Your task to perform on an android device: View the shopping cart on newegg. Image 0: 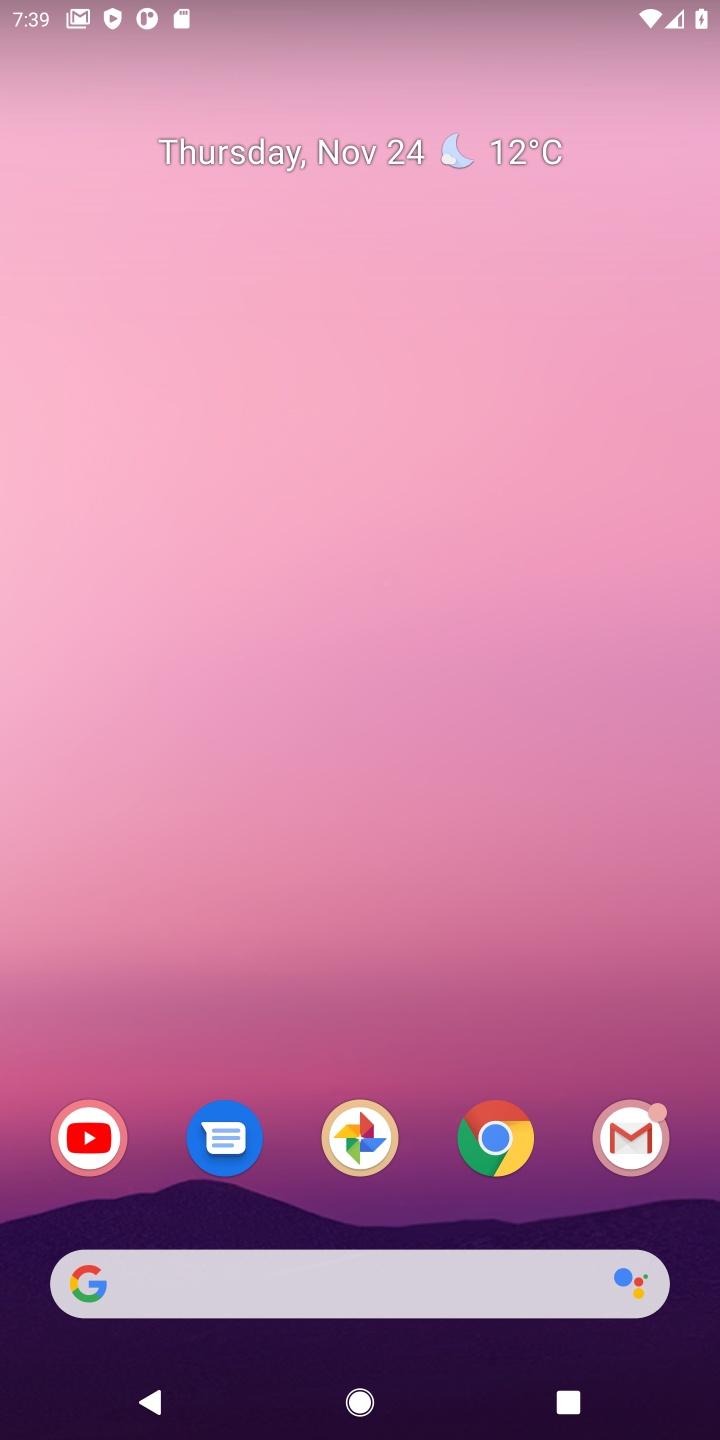
Step 0: click (480, 1124)
Your task to perform on an android device: View the shopping cart on newegg. Image 1: 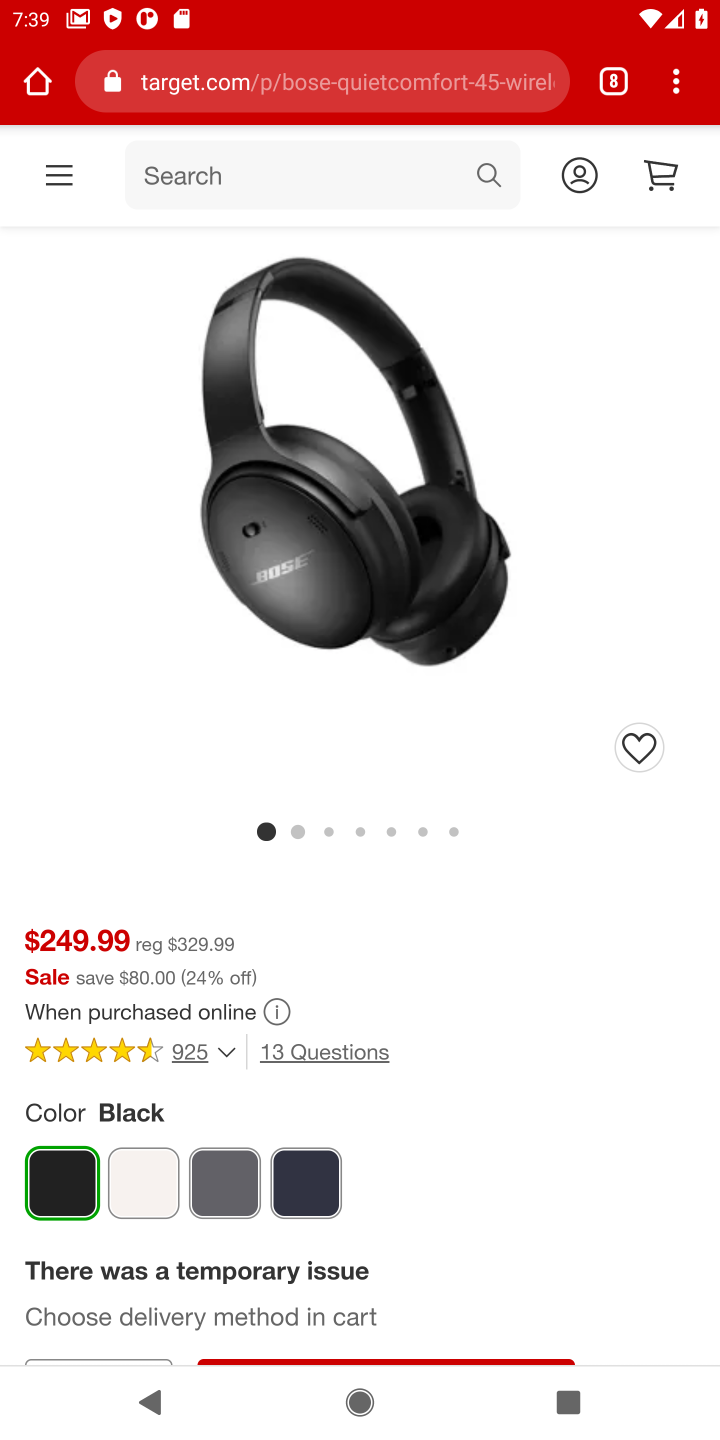
Step 1: click (611, 75)
Your task to perform on an android device: View the shopping cart on newegg. Image 2: 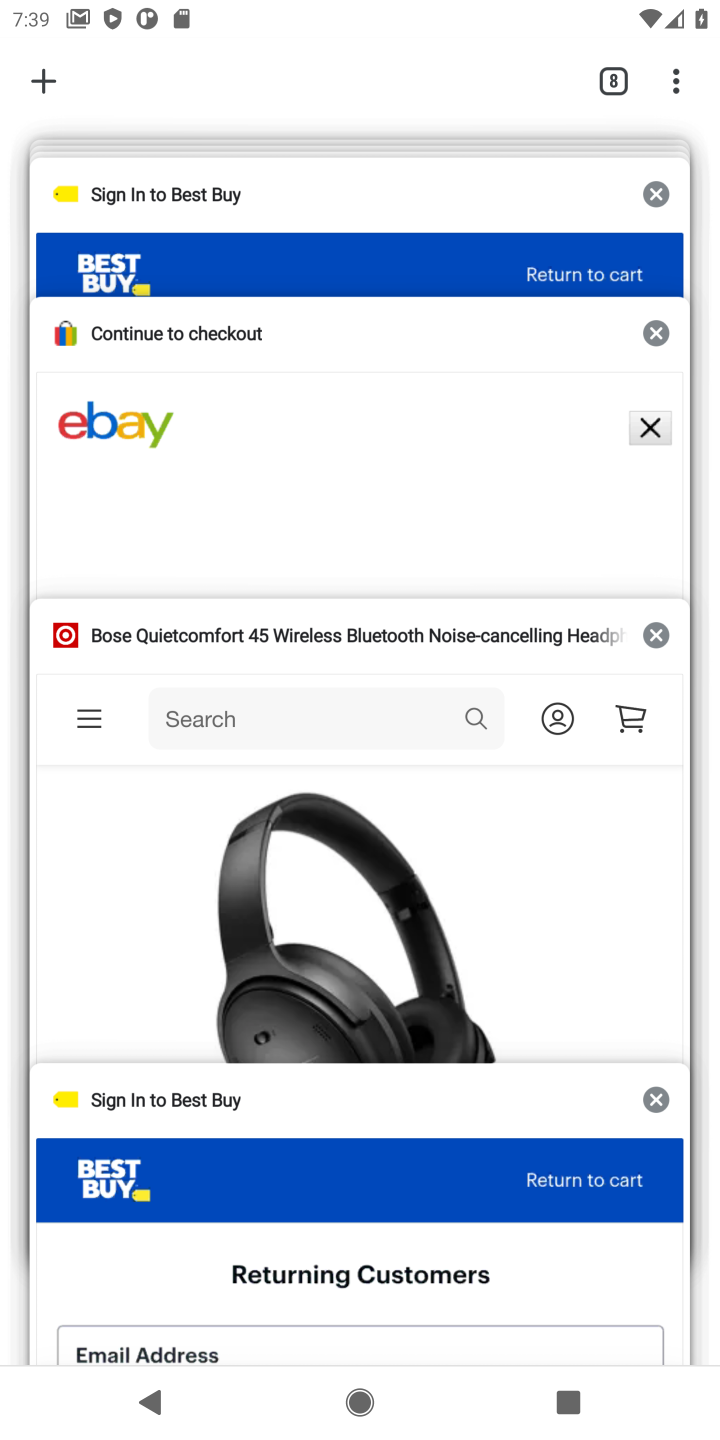
Step 2: click (39, 68)
Your task to perform on an android device: View the shopping cart on newegg. Image 3: 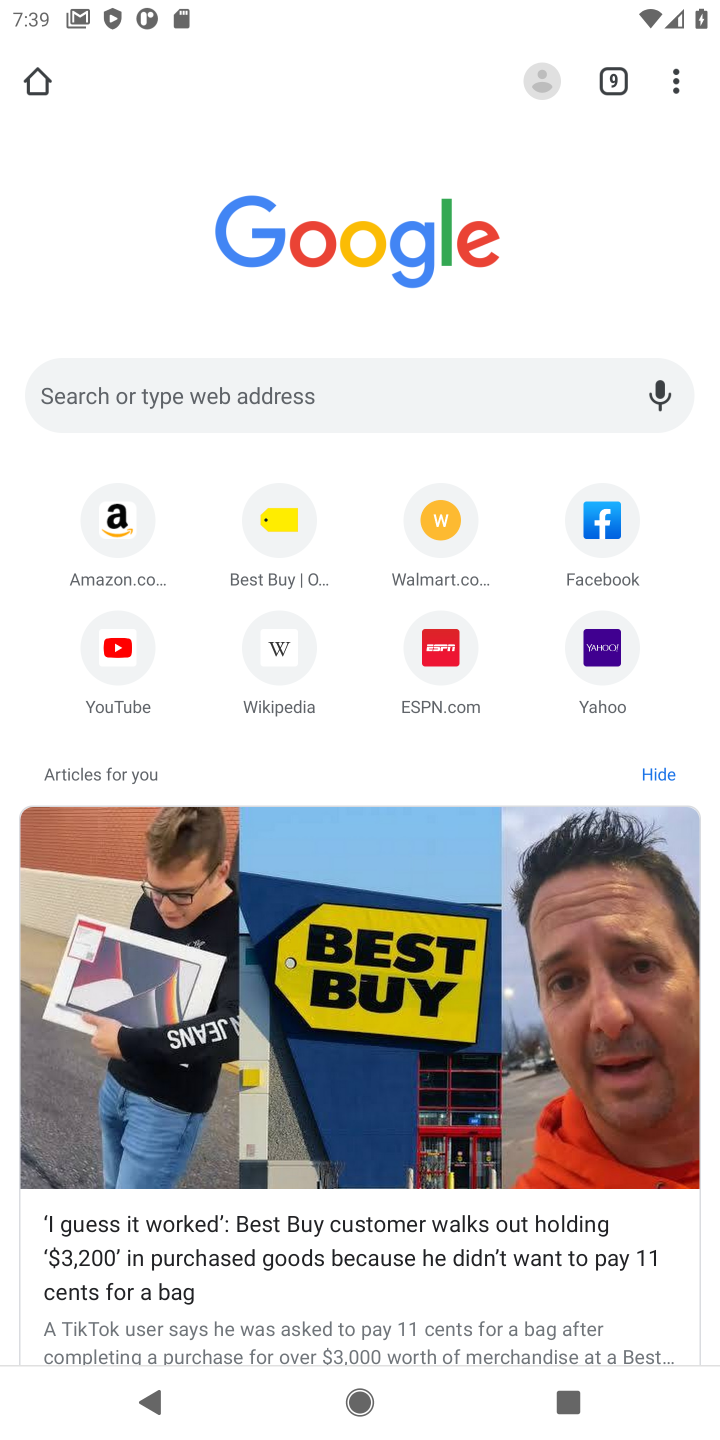
Step 3: click (281, 404)
Your task to perform on an android device: View the shopping cart on newegg. Image 4: 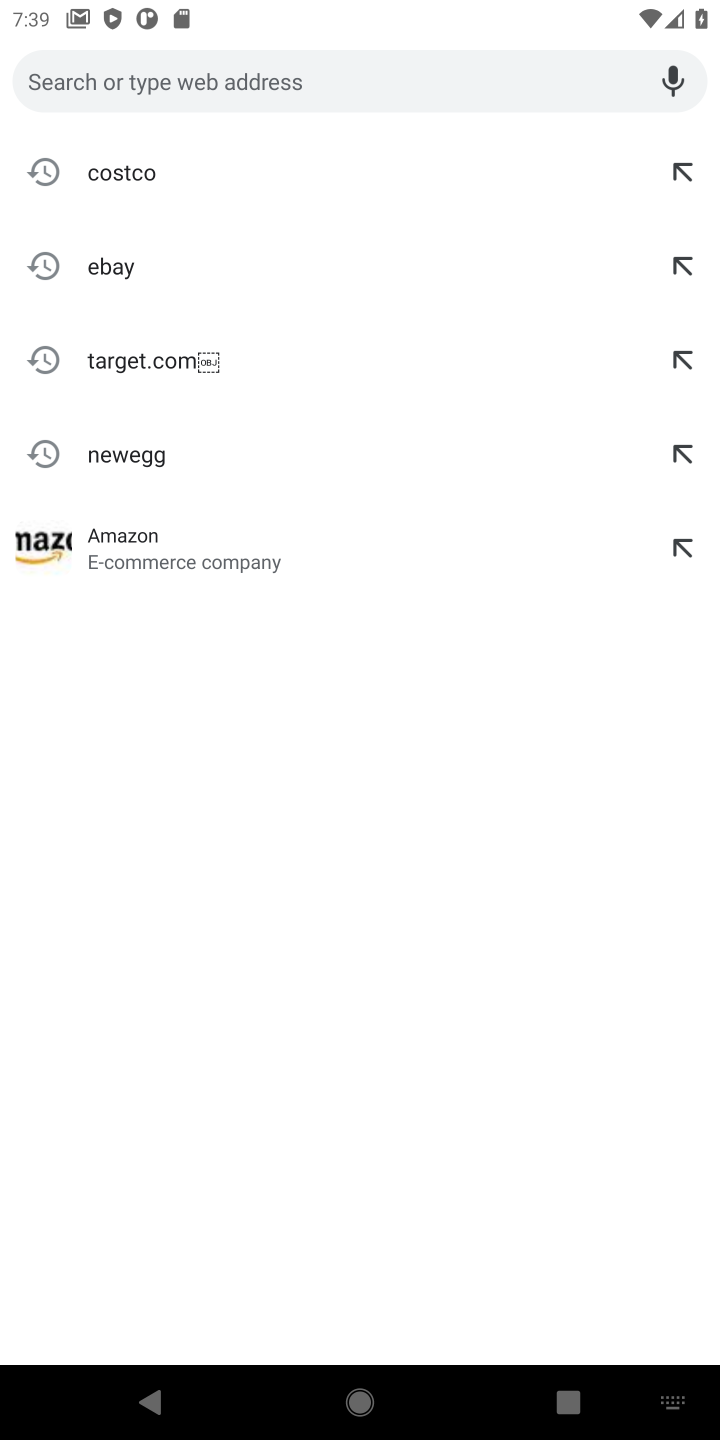
Step 4: click (175, 471)
Your task to perform on an android device: View the shopping cart on newegg. Image 5: 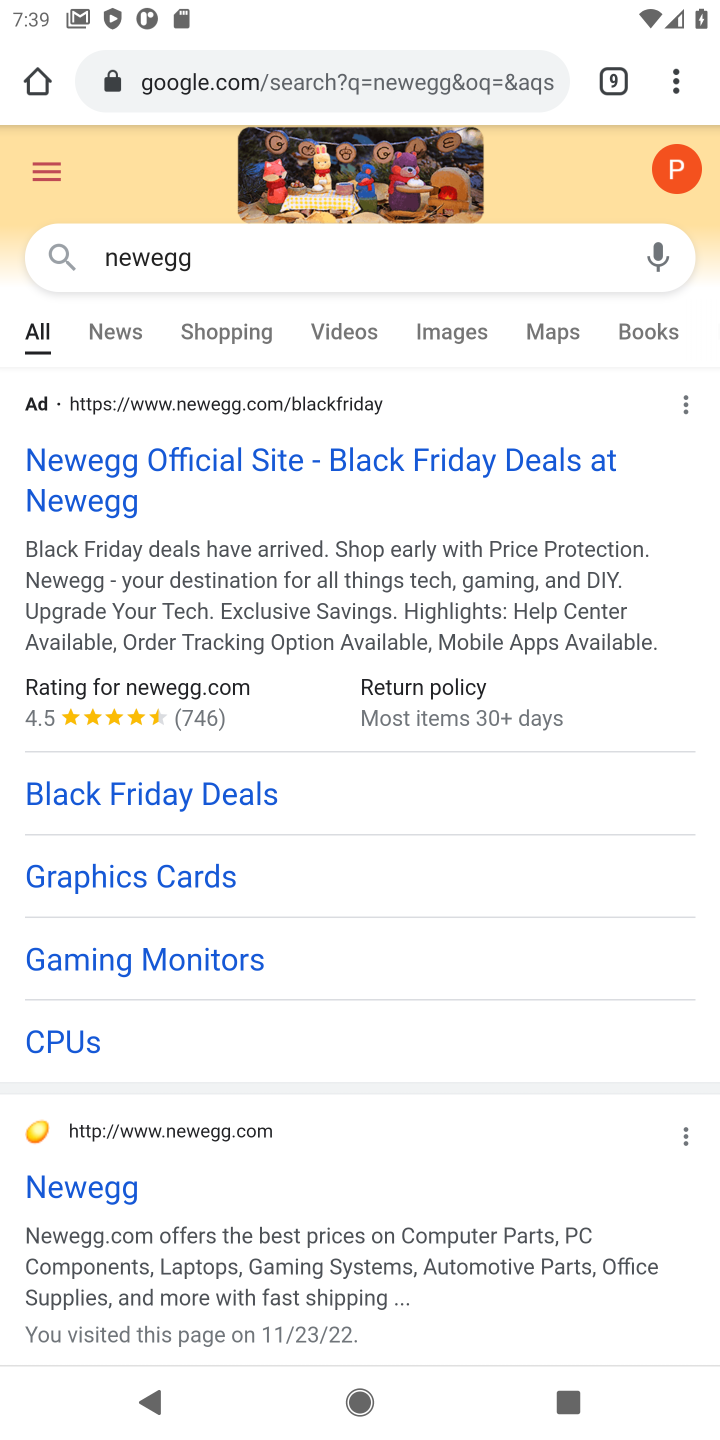
Step 5: click (98, 1194)
Your task to perform on an android device: View the shopping cart on newegg. Image 6: 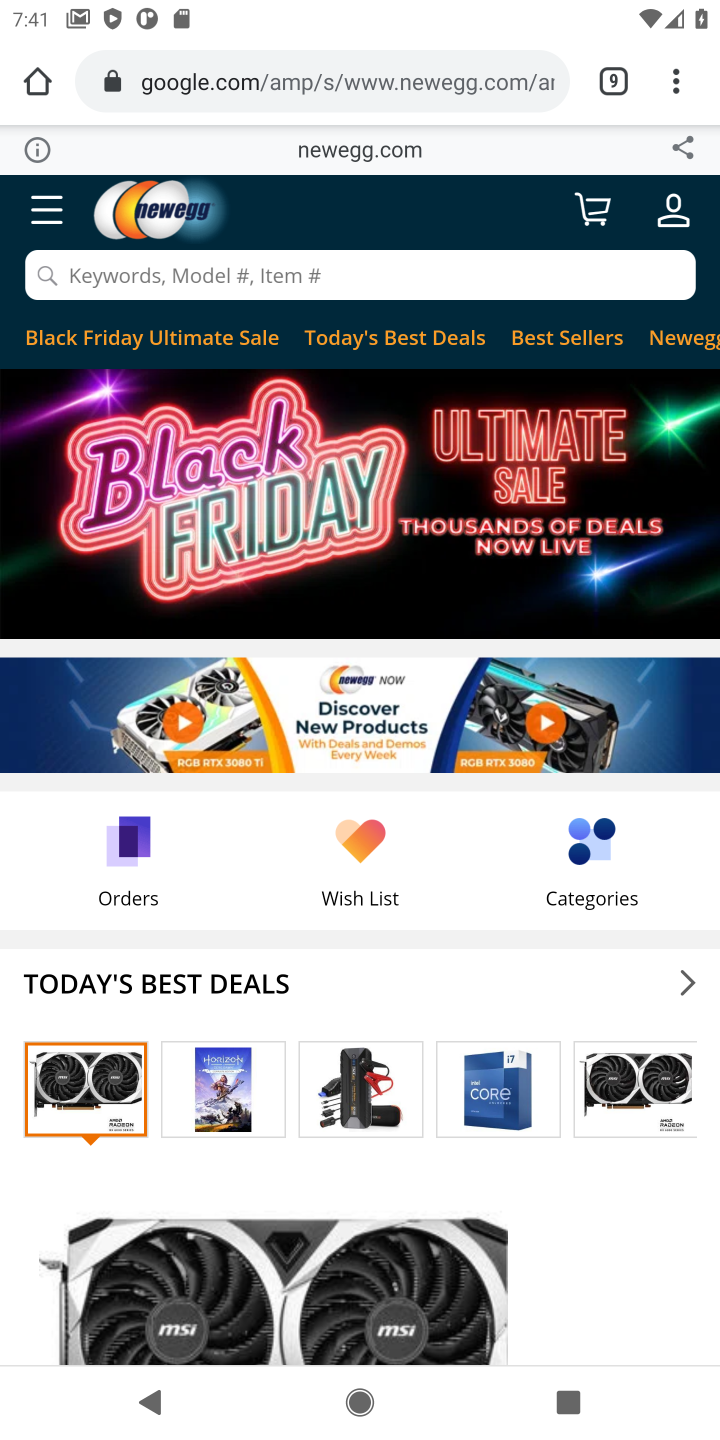
Step 6: click (574, 205)
Your task to perform on an android device: View the shopping cart on newegg. Image 7: 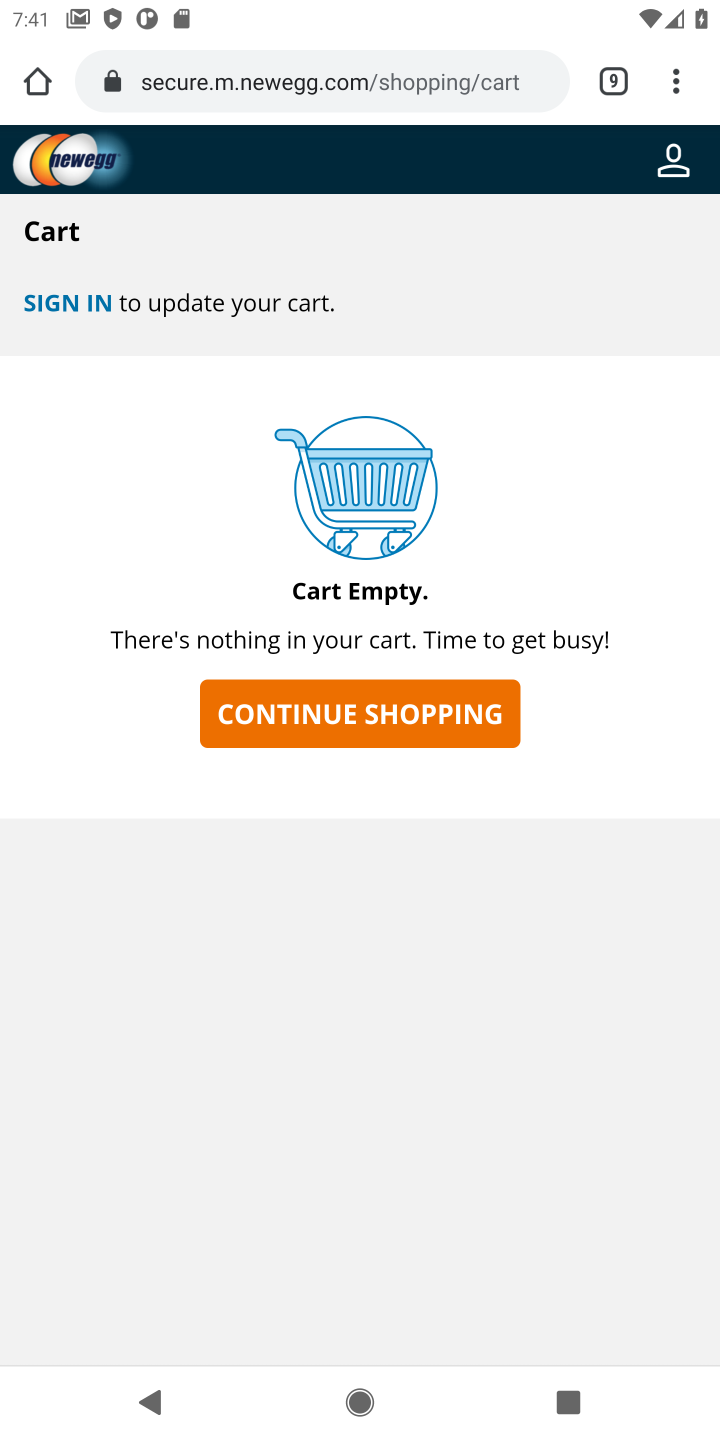
Step 7: click (410, 306)
Your task to perform on an android device: View the shopping cart on newegg. Image 8: 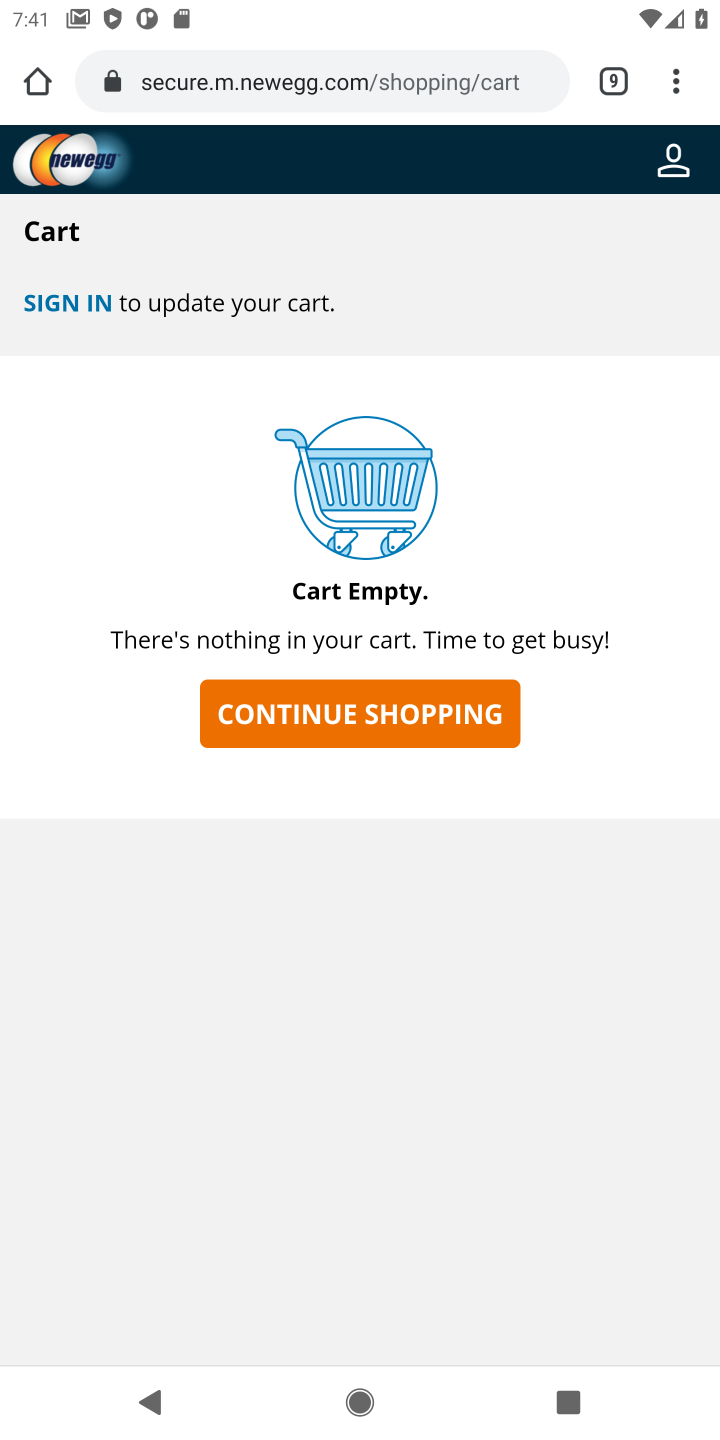
Step 8: task complete